Your task to perform on an android device: Open internet settings Image 0: 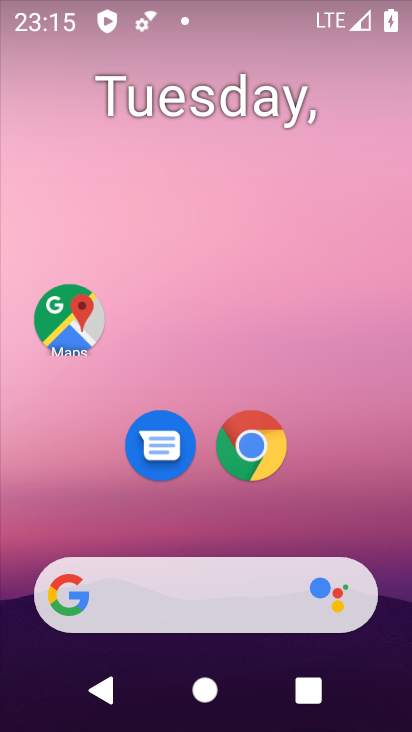
Step 0: drag from (265, 534) to (230, 109)
Your task to perform on an android device: Open internet settings Image 1: 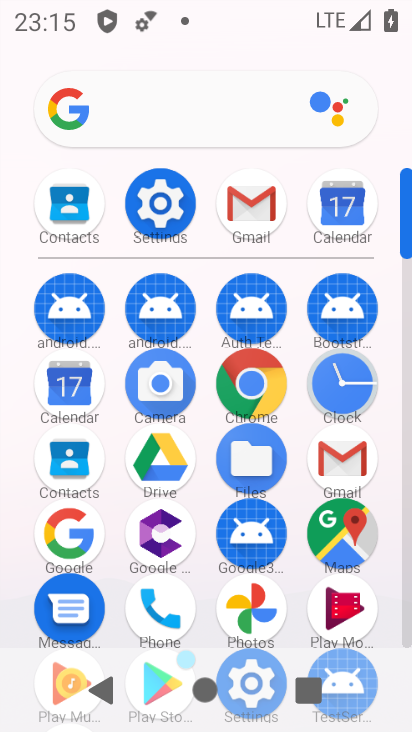
Step 1: click (161, 198)
Your task to perform on an android device: Open internet settings Image 2: 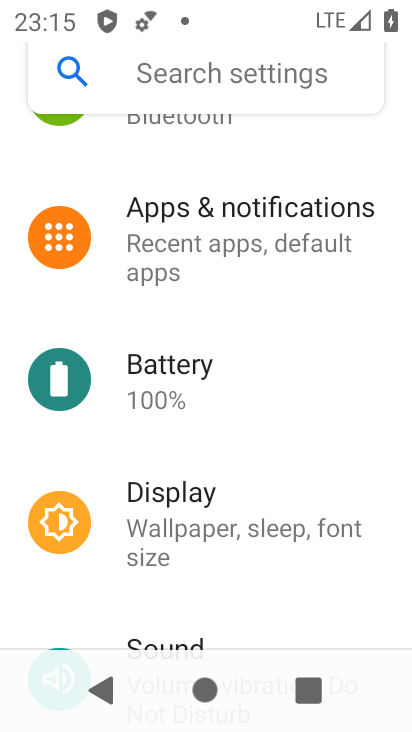
Step 2: drag from (305, 229) to (256, 605)
Your task to perform on an android device: Open internet settings Image 3: 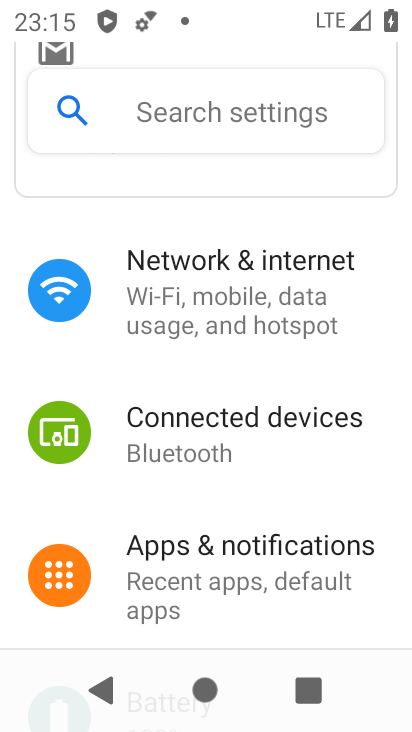
Step 3: click (238, 303)
Your task to perform on an android device: Open internet settings Image 4: 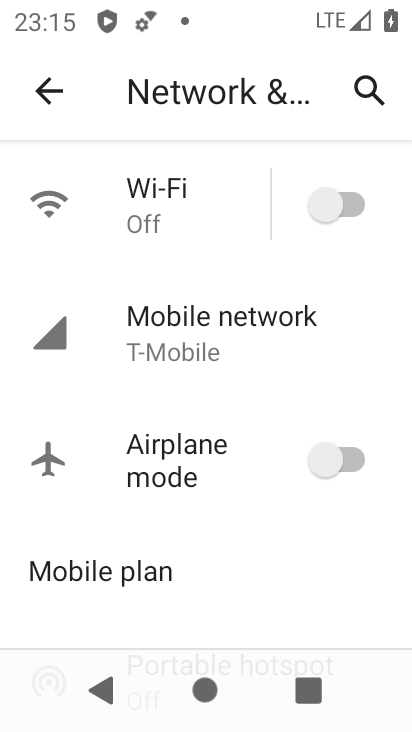
Step 4: click (135, 329)
Your task to perform on an android device: Open internet settings Image 5: 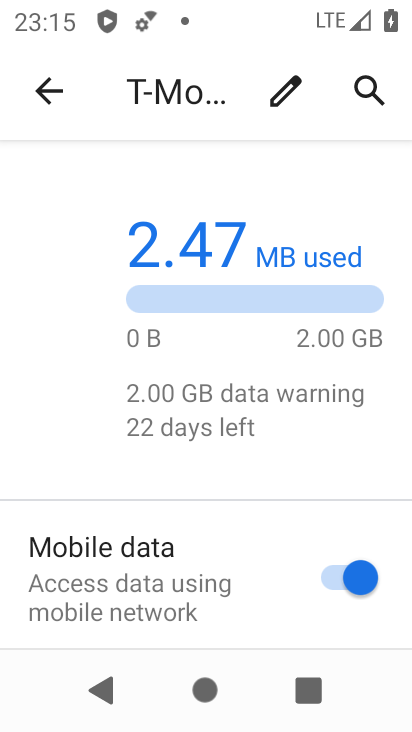
Step 5: task complete